Your task to perform on an android device: check battery use Image 0: 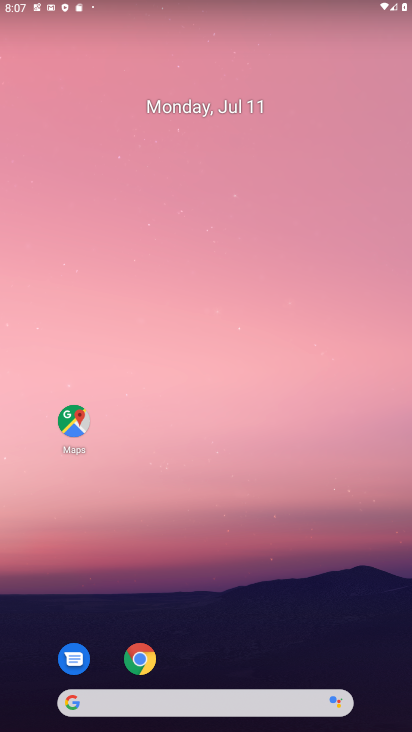
Step 0: drag from (199, 331) to (185, 226)
Your task to perform on an android device: check battery use Image 1: 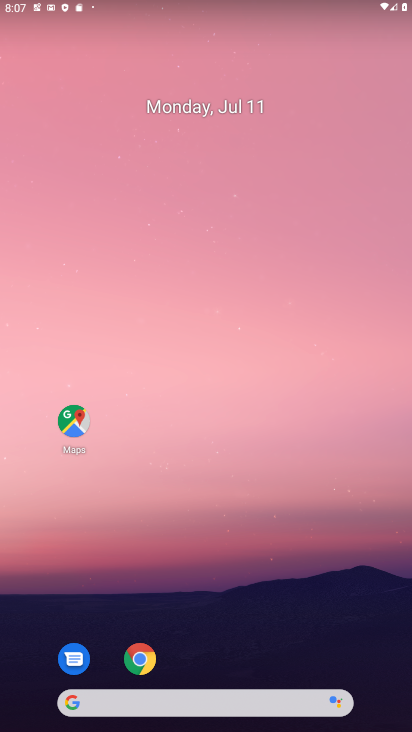
Step 1: drag from (236, 720) to (169, 59)
Your task to perform on an android device: check battery use Image 2: 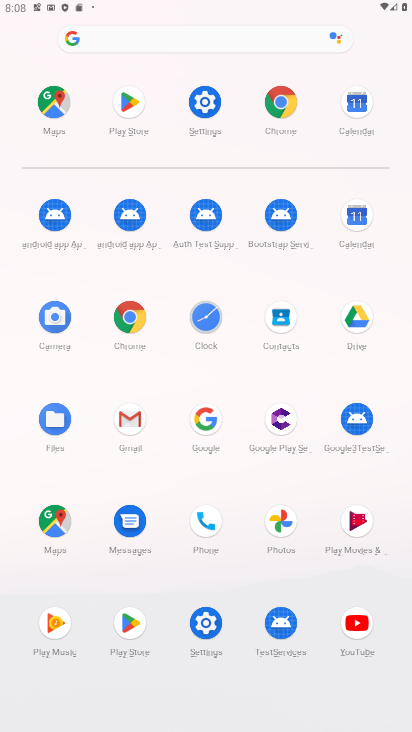
Step 2: click (205, 621)
Your task to perform on an android device: check battery use Image 3: 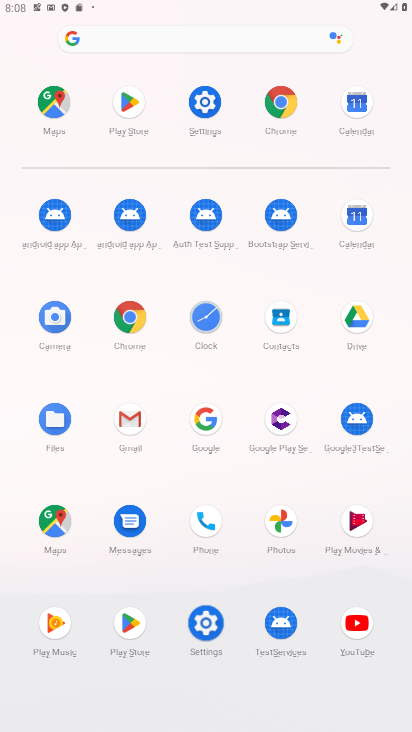
Step 3: click (205, 621)
Your task to perform on an android device: check battery use Image 4: 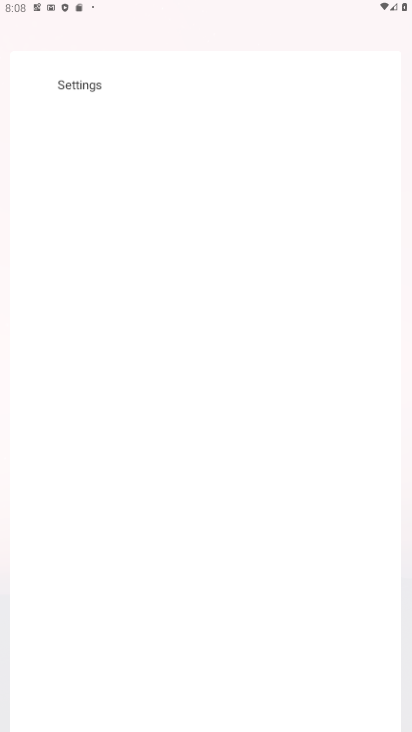
Step 4: click (205, 621)
Your task to perform on an android device: check battery use Image 5: 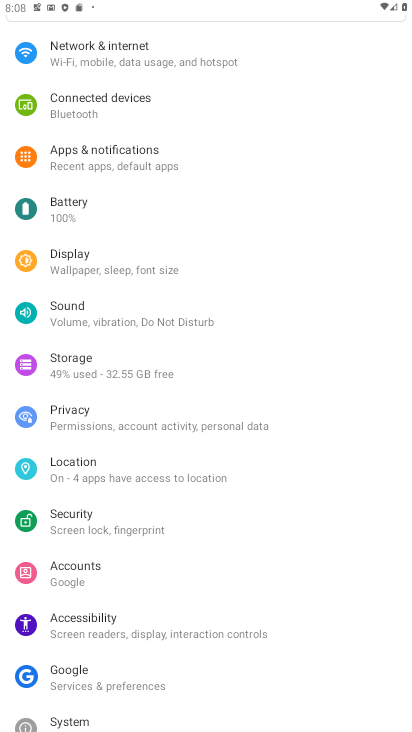
Step 5: click (74, 210)
Your task to perform on an android device: check battery use Image 6: 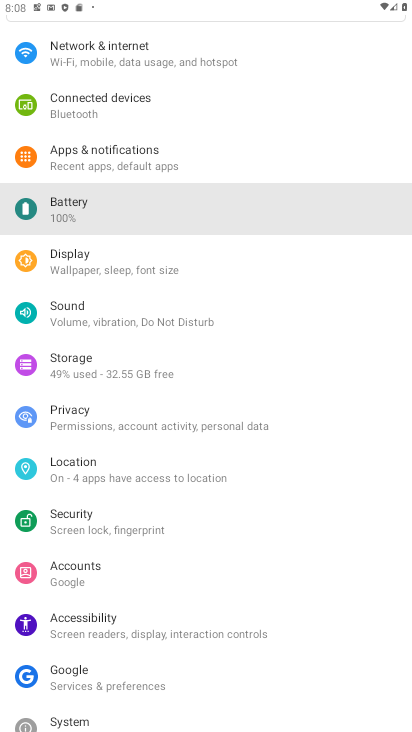
Step 6: click (74, 210)
Your task to perform on an android device: check battery use Image 7: 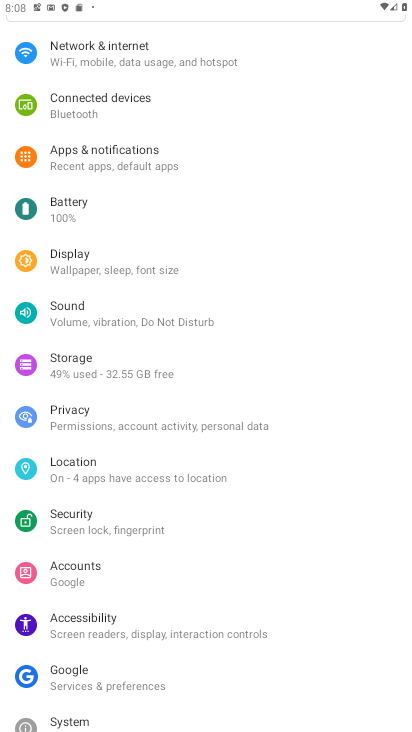
Step 7: click (74, 211)
Your task to perform on an android device: check battery use Image 8: 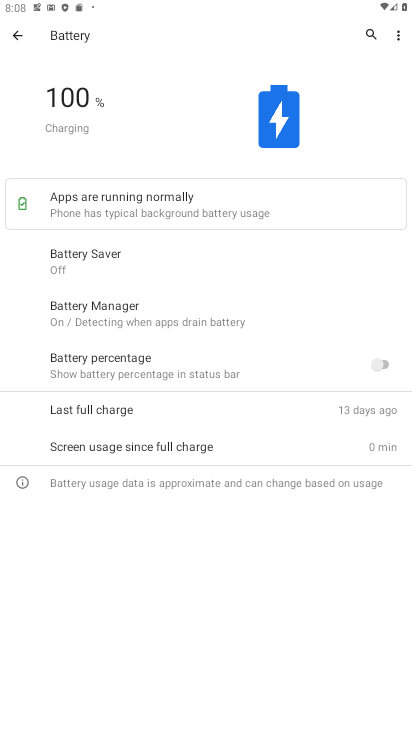
Step 8: task complete